Your task to perform on an android device: Add usb-c to usb-a to the cart on ebay.com Image 0: 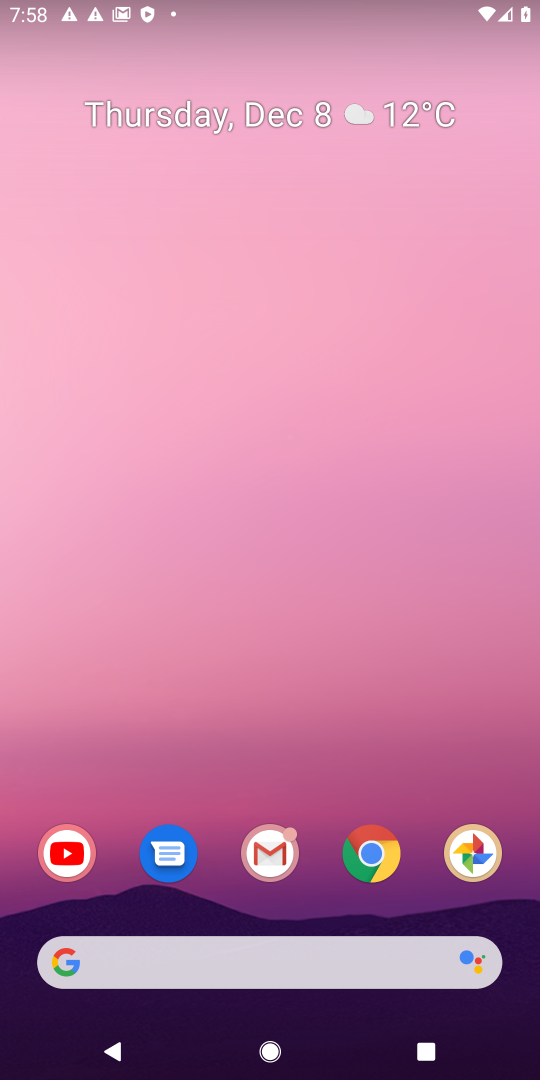
Step 0: click (217, 969)
Your task to perform on an android device: Add usb-c to usb-a to the cart on ebay.com Image 1: 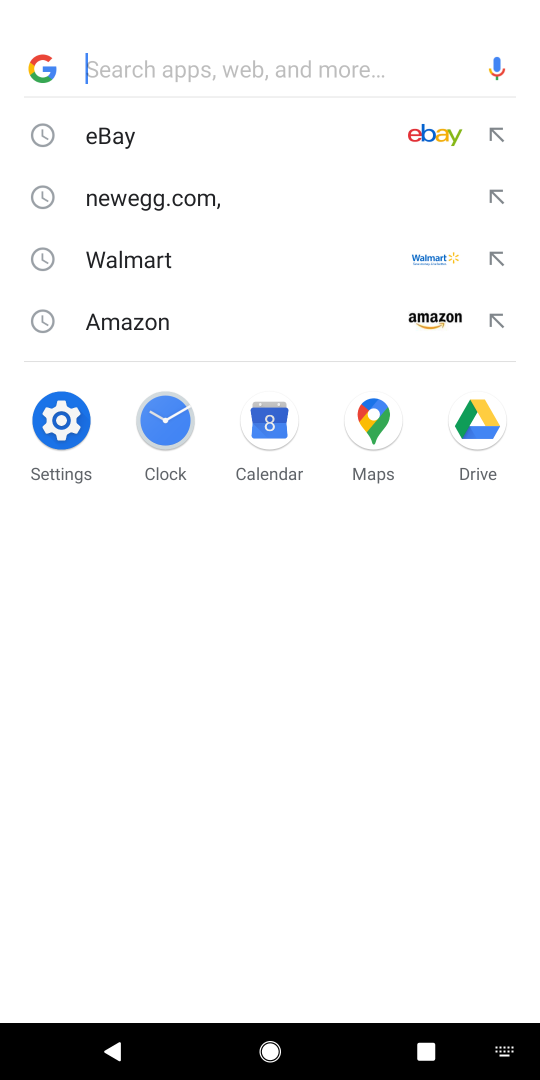
Step 1: click (133, 130)
Your task to perform on an android device: Add usb-c to usb-a to the cart on ebay.com Image 2: 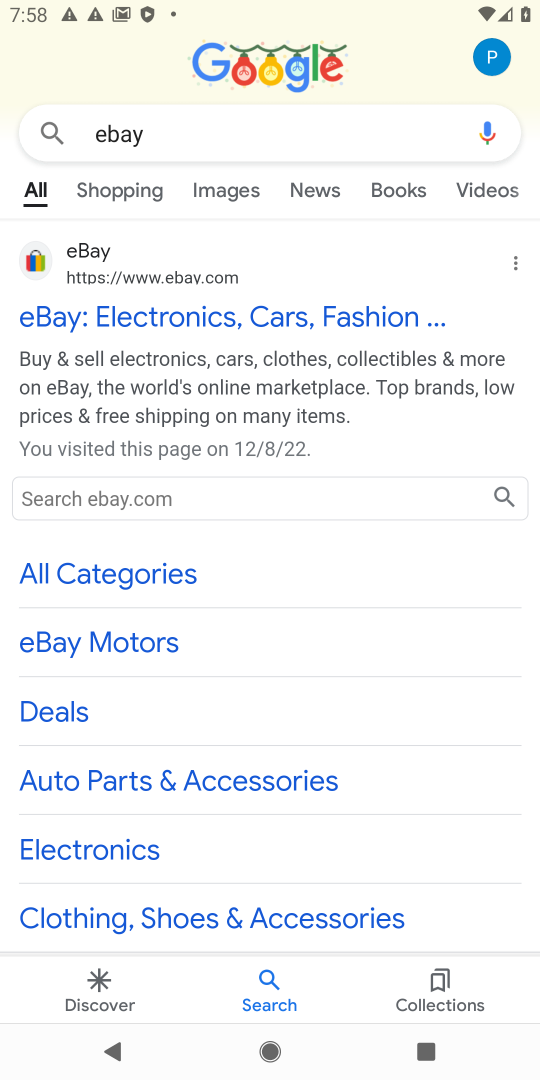
Step 2: click (160, 317)
Your task to perform on an android device: Add usb-c to usb-a to the cart on ebay.com Image 3: 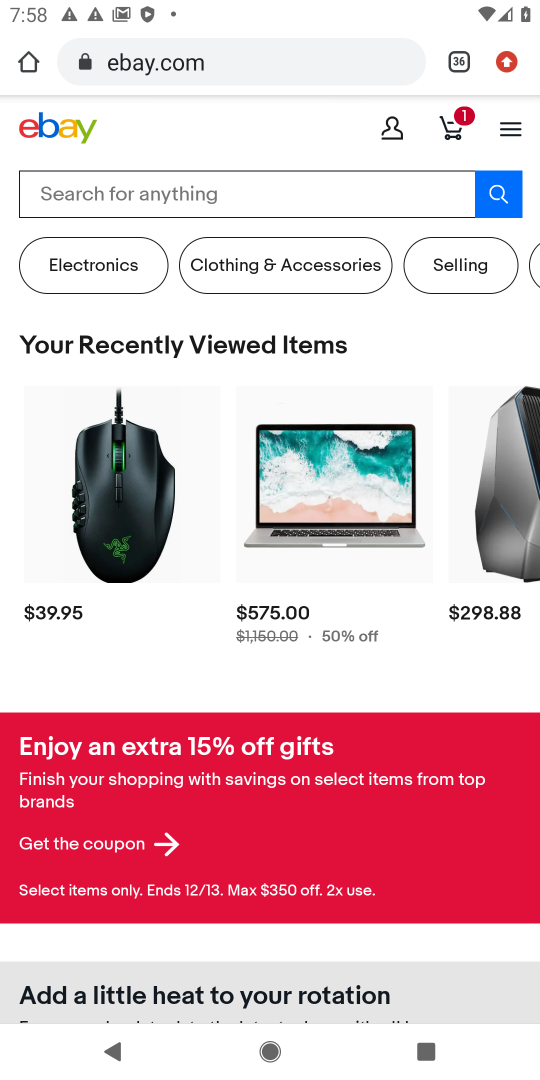
Step 3: click (237, 190)
Your task to perform on an android device: Add usb-c to usb-a to the cart on ebay.com Image 4: 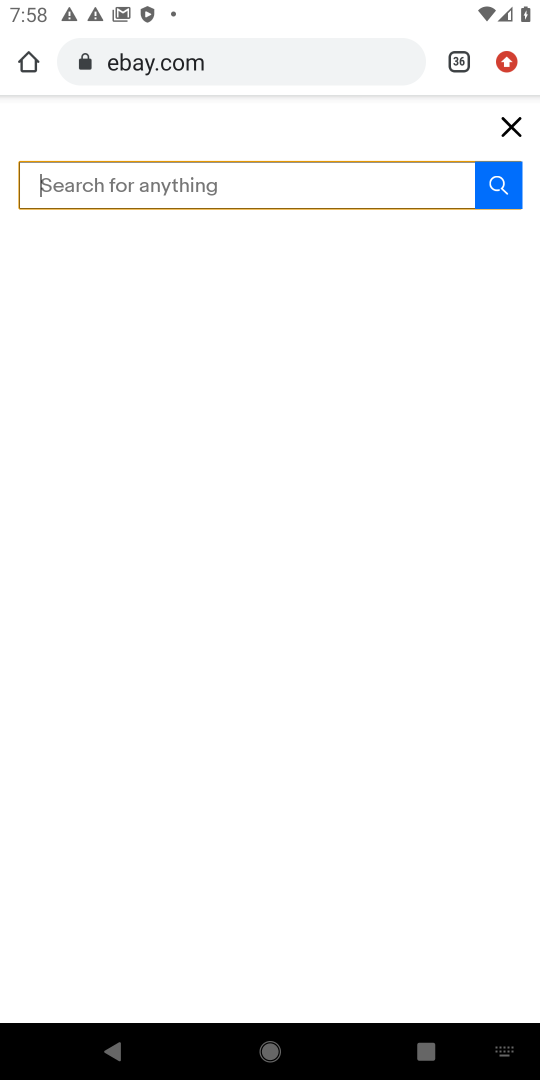
Step 4: type "usb-c to usb-a"
Your task to perform on an android device: Add usb-c to usb-a to the cart on ebay.com Image 5: 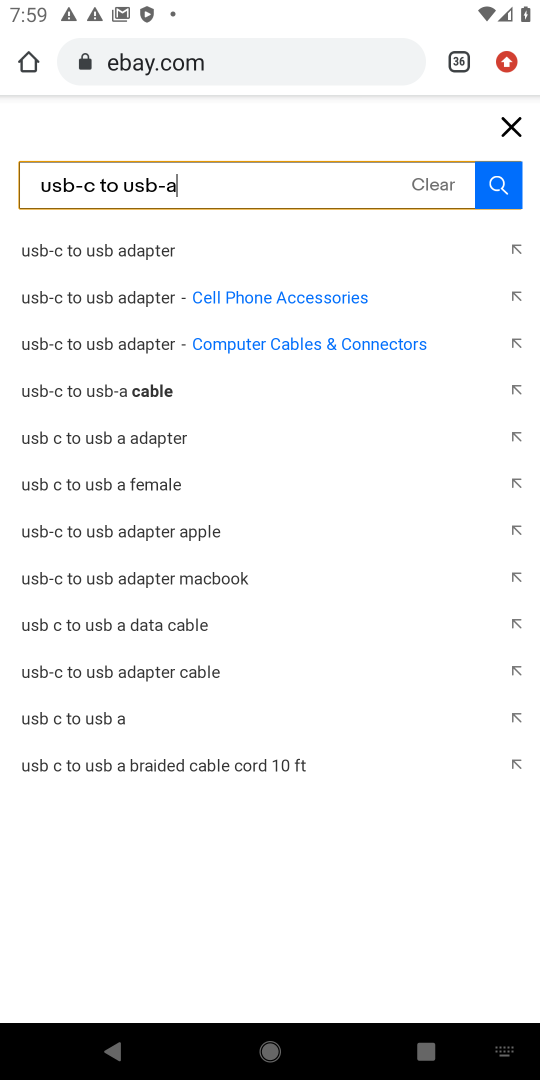
Step 5: click (71, 711)
Your task to perform on an android device: Add usb-c to usb-a to the cart on ebay.com Image 6: 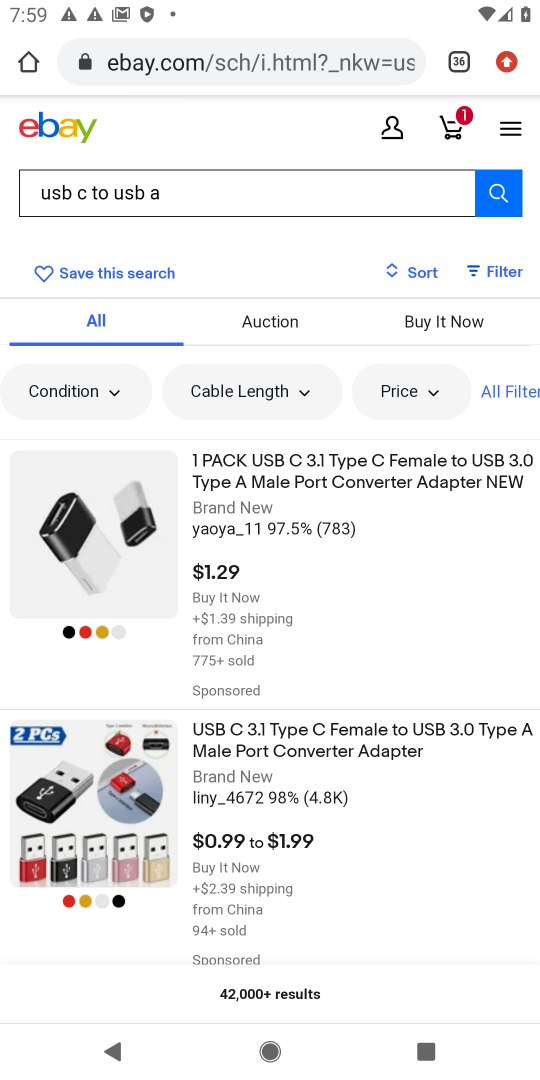
Step 6: click (336, 473)
Your task to perform on an android device: Add usb-c to usb-a to the cart on ebay.com Image 7: 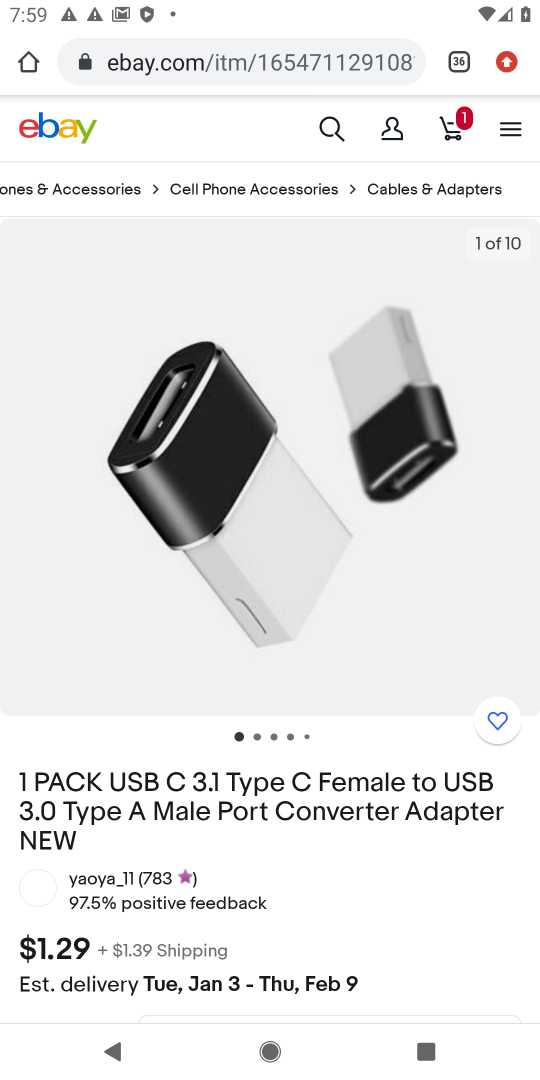
Step 7: drag from (327, 674) to (327, 345)
Your task to perform on an android device: Add usb-c to usb-a to the cart on ebay.com Image 8: 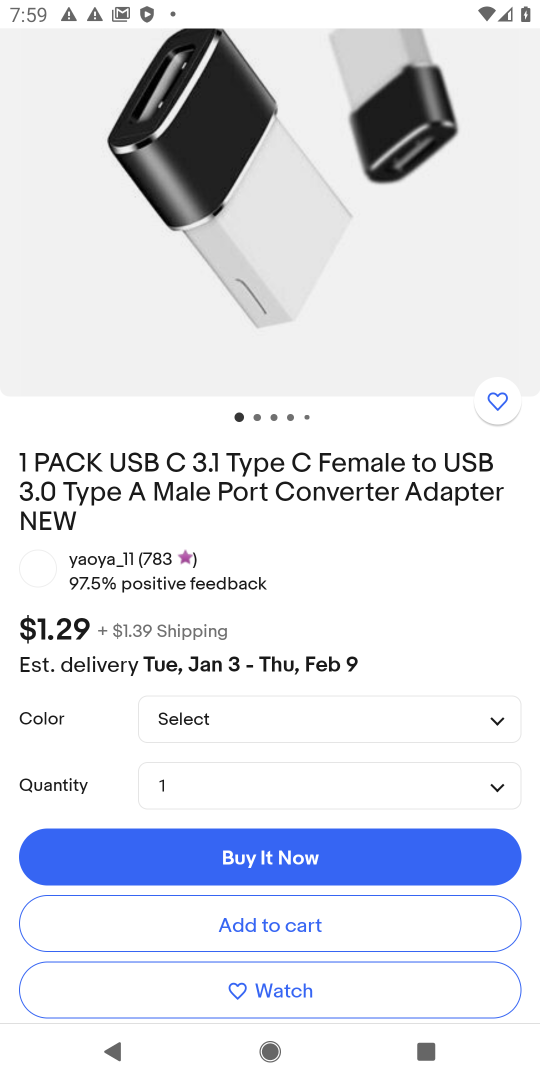
Step 8: click (265, 922)
Your task to perform on an android device: Add usb-c to usb-a to the cart on ebay.com Image 9: 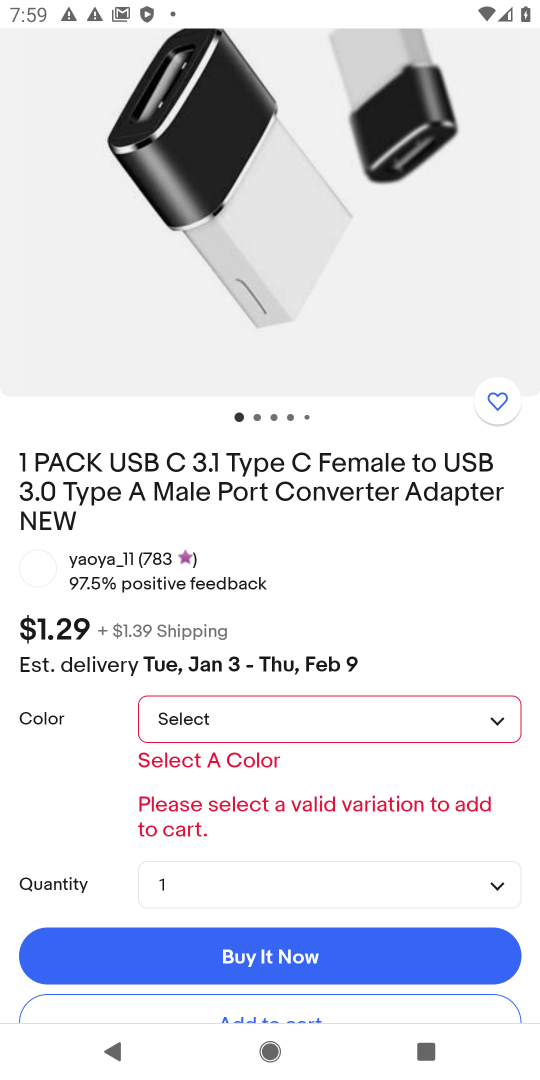
Step 9: click (379, 726)
Your task to perform on an android device: Add usb-c to usb-a to the cart on ebay.com Image 10: 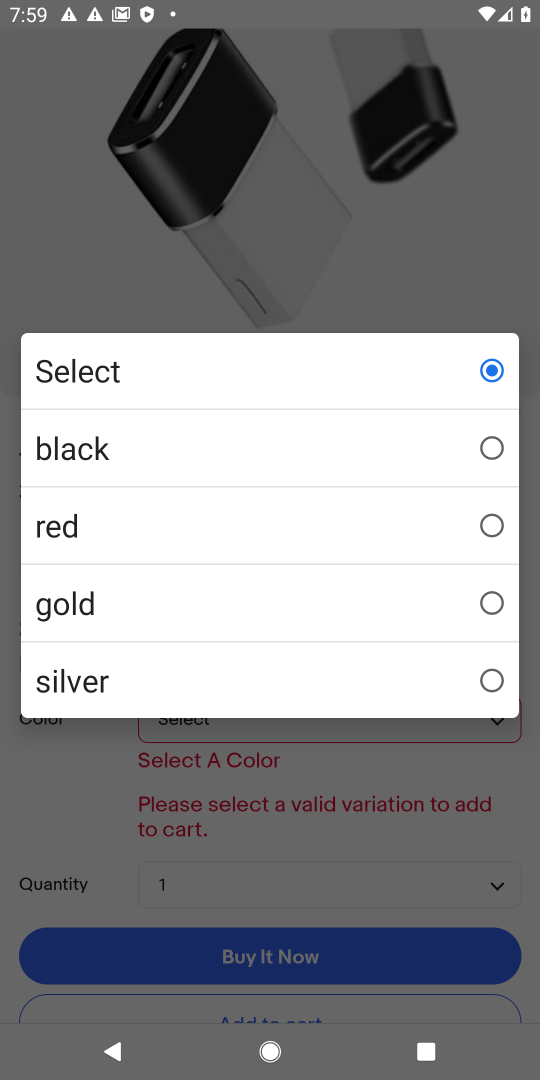
Step 10: click (187, 612)
Your task to perform on an android device: Add usb-c to usb-a to the cart on ebay.com Image 11: 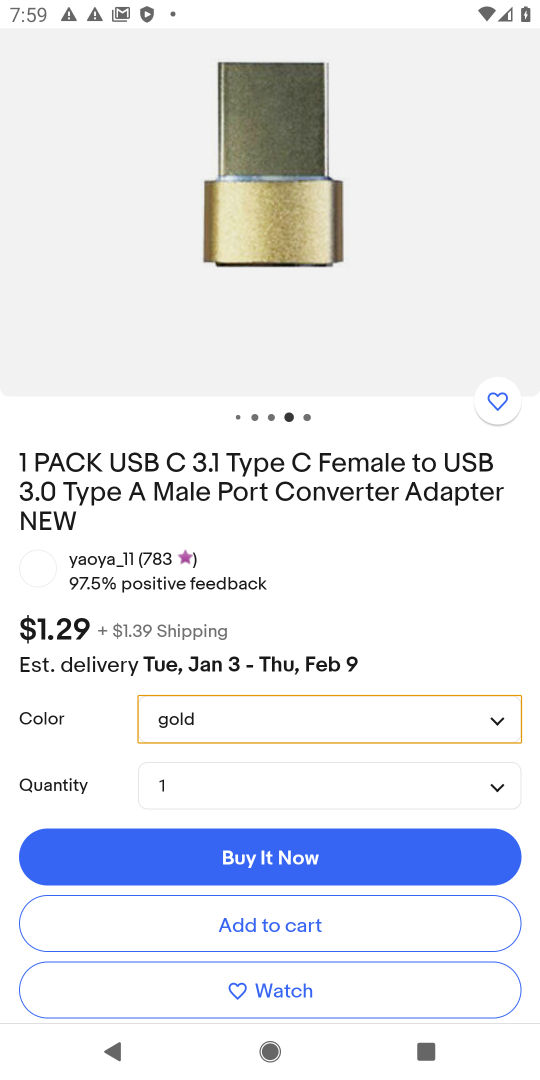
Step 11: click (329, 935)
Your task to perform on an android device: Add usb-c to usb-a to the cart on ebay.com Image 12: 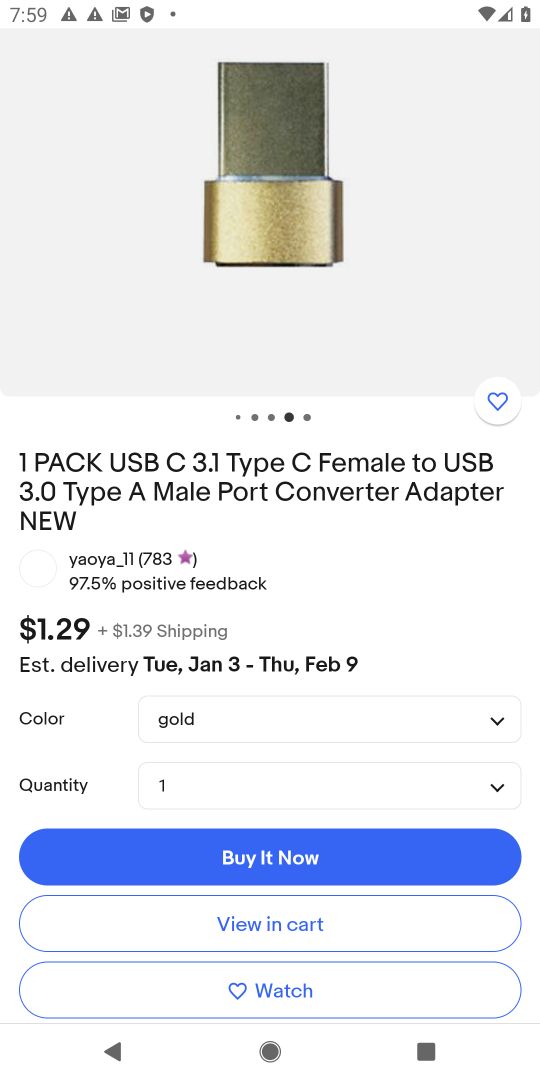
Step 12: task complete